Your task to perform on an android device: Toggle the flashlight Image 0: 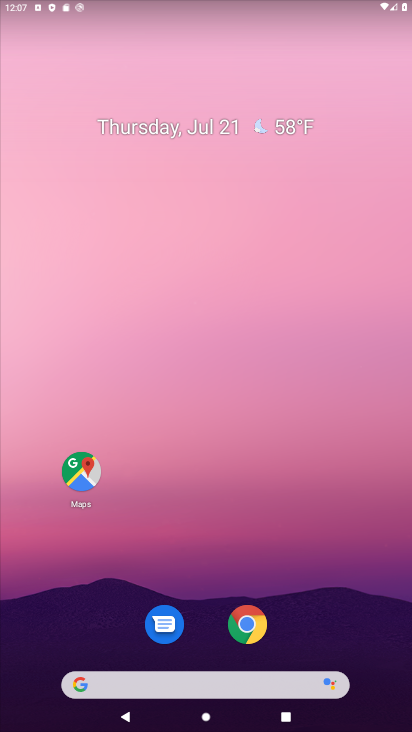
Step 0: drag from (197, 591) to (217, 56)
Your task to perform on an android device: Toggle the flashlight Image 1: 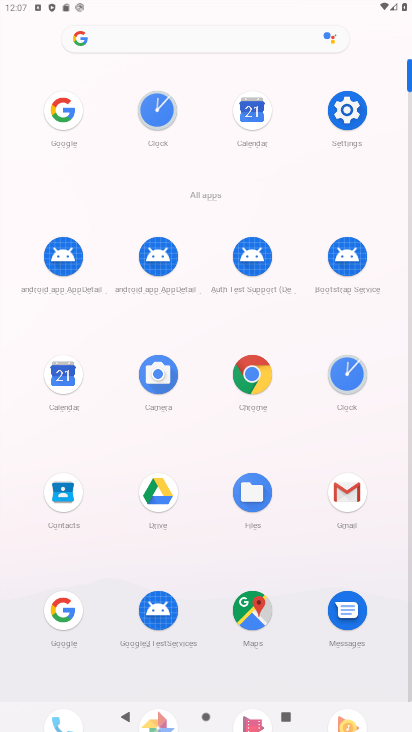
Step 1: click (327, 99)
Your task to perform on an android device: Toggle the flashlight Image 2: 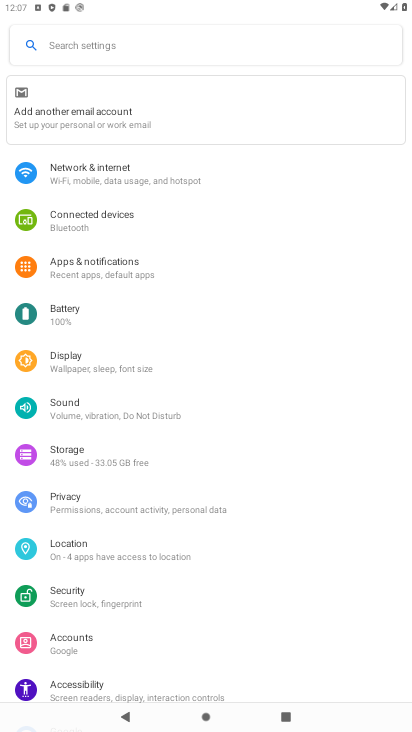
Step 2: task complete